Your task to perform on an android device: Open the stopwatch Image 0: 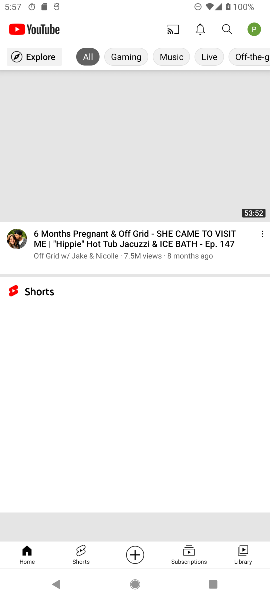
Step 0: press back button
Your task to perform on an android device: Open the stopwatch Image 1: 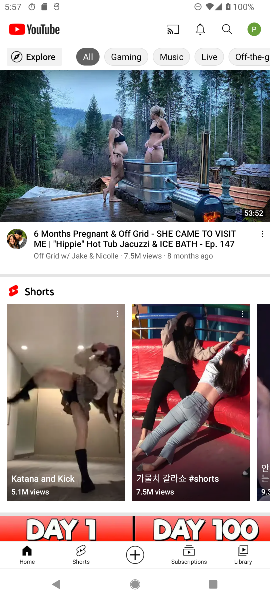
Step 1: press home button
Your task to perform on an android device: Open the stopwatch Image 2: 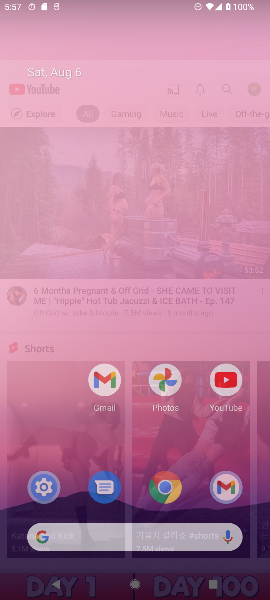
Step 2: press home button
Your task to perform on an android device: Open the stopwatch Image 3: 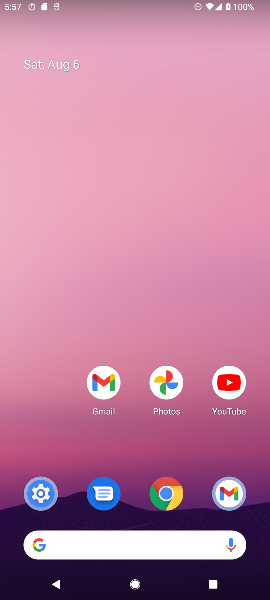
Step 3: drag from (148, 566) to (95, 165)
Your task to perform on an android device: Open the stopwatch Image 4: 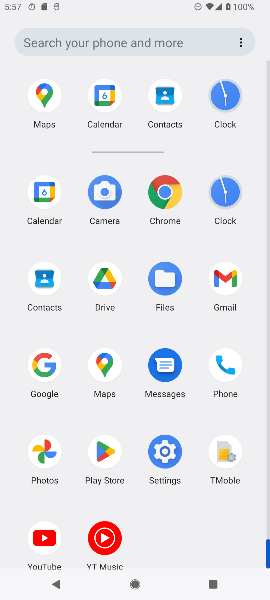
Step 4: click (221, 184)
Your task to perform on an android device: Open the stopwatch Image 5: 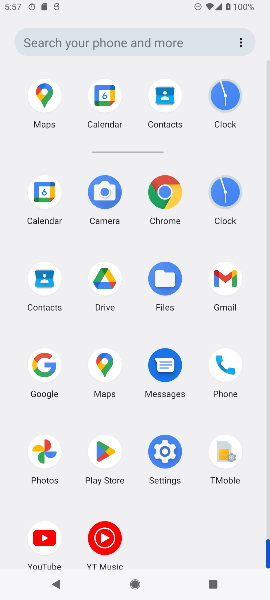
Step 5: click (221, 184)
Your task to perform on an android device: Open the stopwatch Image 6: 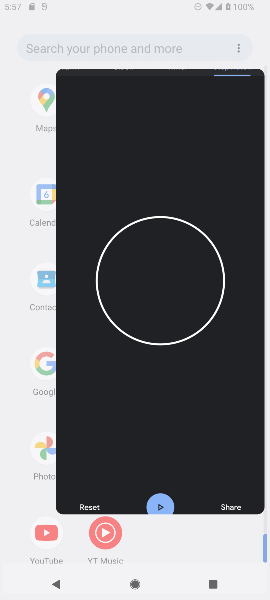
Step 6: click (222, 186)
Your task to perform on an android device: Open the stopwatch Image 7: 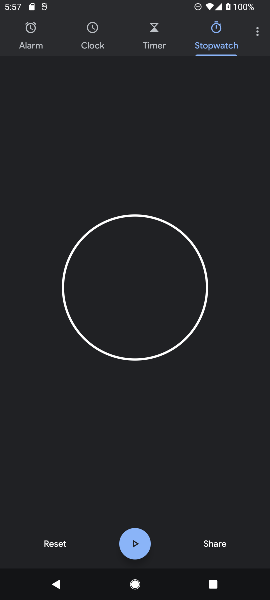
Step 7: click (222, 186)
Your task to perform on an android device: Open the stopwatch Image 8: 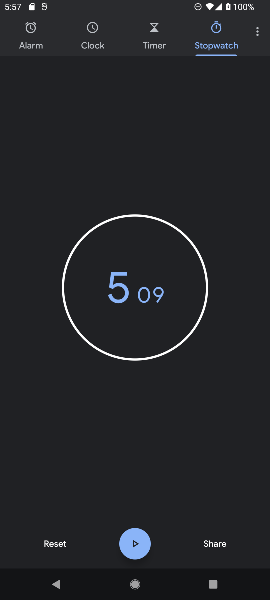
Step 8: click (139, 541)
Your task to perform on an android device: Open the stopwatch Image 9: 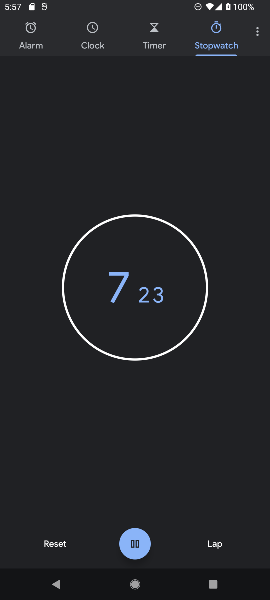
Step 9: click (136, 542)
Your task to perform on an android device: Open the stopwatch Image 10: 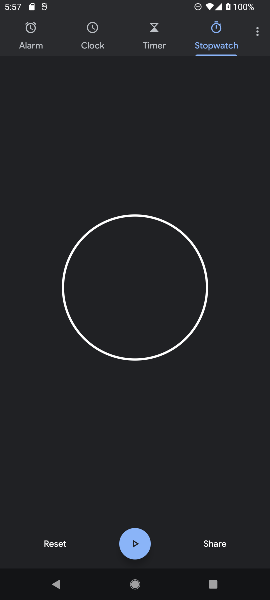
Step 10: task complete